Your task to perform on an android device: Is it going to rain today? Image 0: 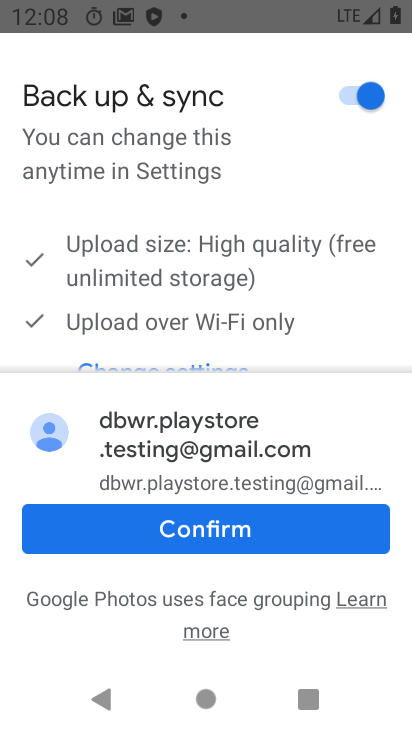
Step 0: press home button
Your task to perform on an android device: Is it going to rain today? Image 1: 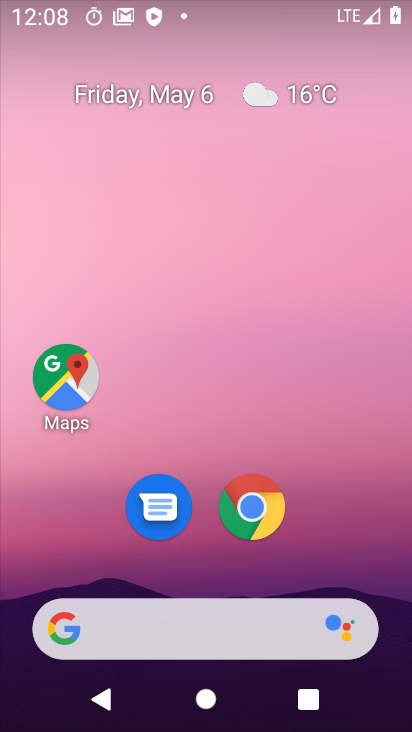
Step 1: click (258, 89)
Your task to perform on an android device: Is it going to rain today? Image 2: 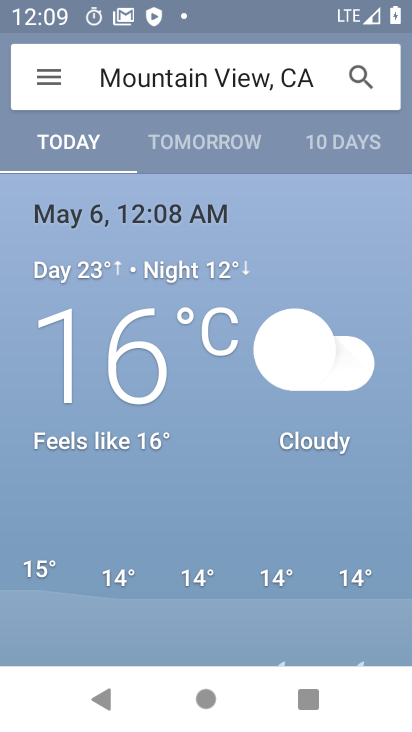
Step 2: task complete